Your task to perform on an android device: change the clock display to show seconds Image 0: 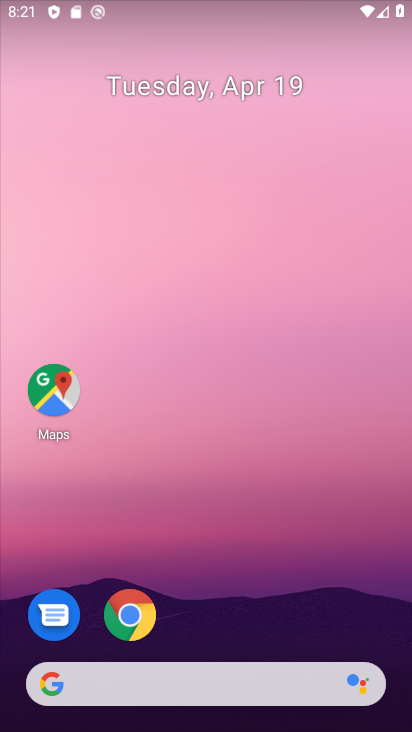
Step 0: drag from (212, 619) to (272, 130)
Your task to perform on an android device: change the clock display to show seconds Image 1: 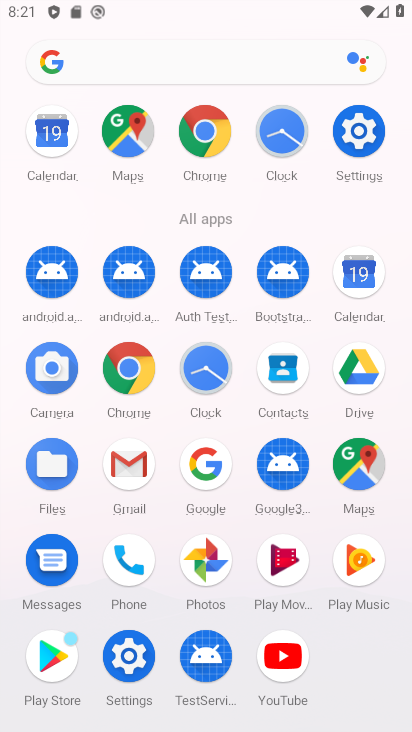
Step 1: click (272, 130)
Your task to perform on an android device: change the clock display to show seconds Image 2: 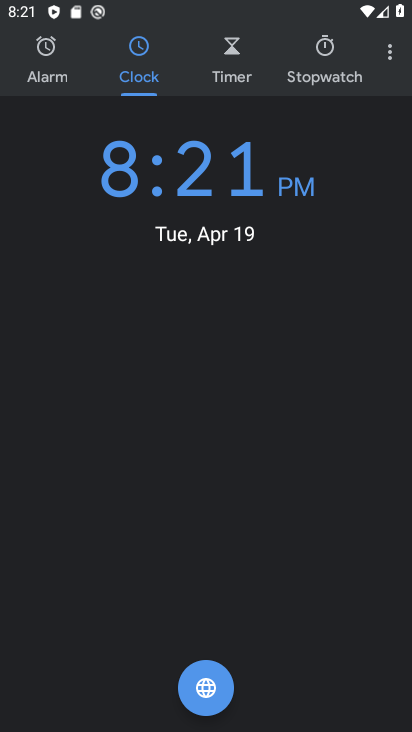
Step 2: click (389, 57)
Your task to perform on an android device: change the clock display to show seconds Image 3: 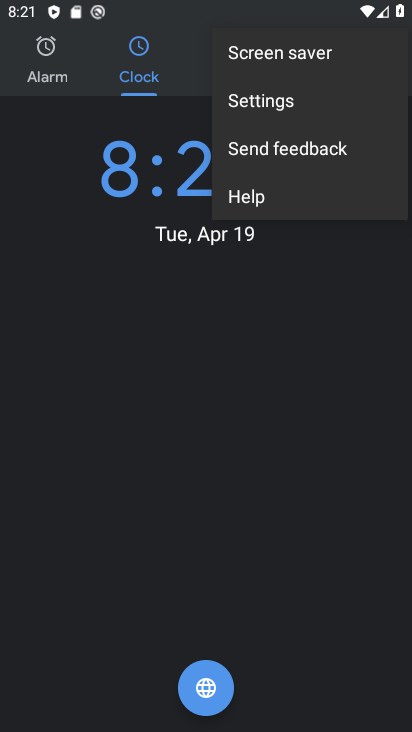
Step 3: click (287, 106)
Your task to perform on an android device: change the clock display to show seconds Image 4: 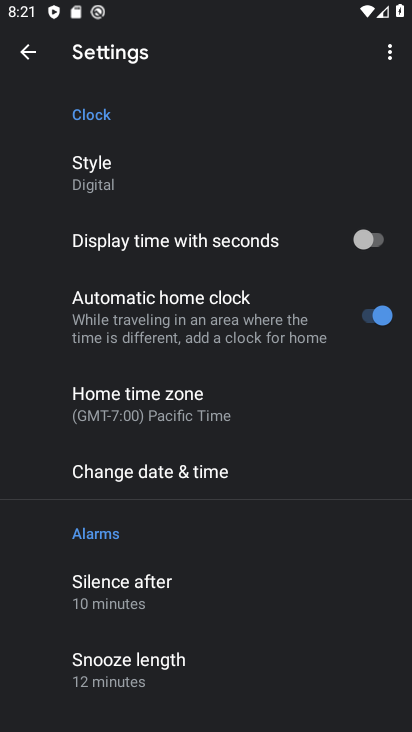
Step 4: click (376, 239)
Your task to perform on an android device: change the clock display to show seconds Image 5: 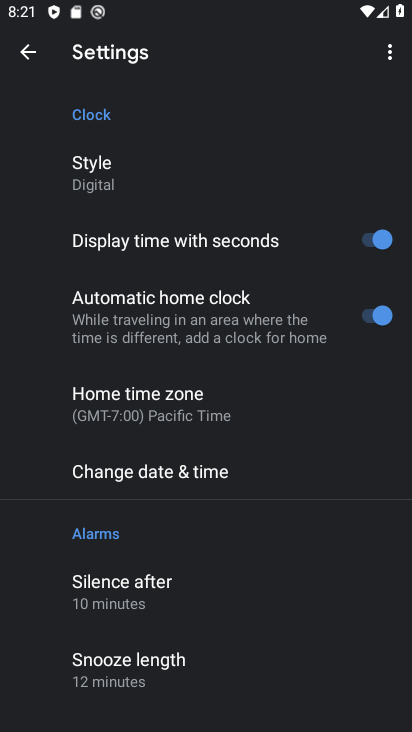
Step 5: task complete